Your task to perform on an android device: Go to location settings Image 0: 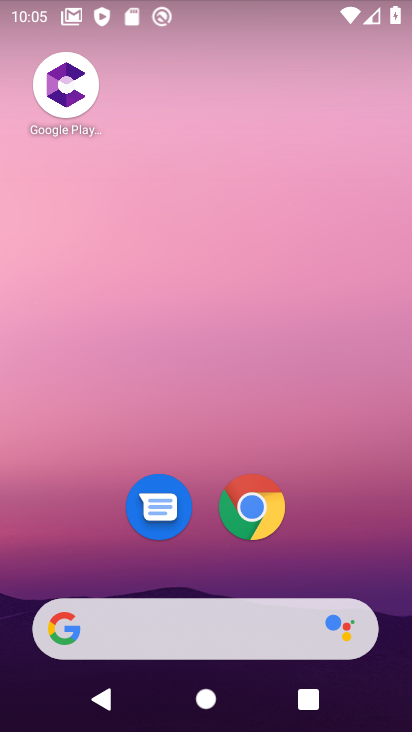
Step 0: drag from (348, 575) to (353, 10)
Your task to perform on an android device: Go to location settings Image 1: 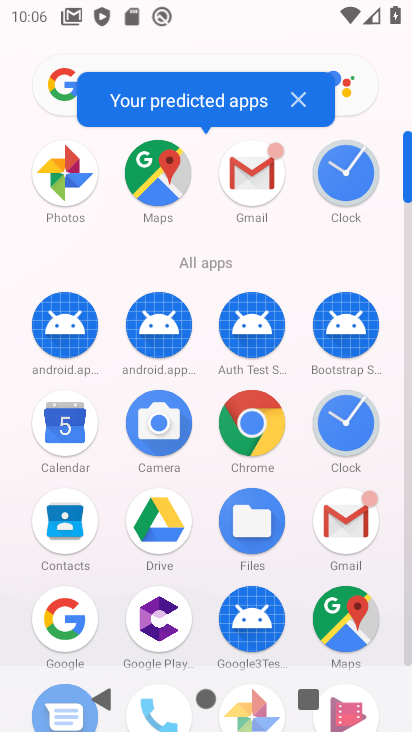
Step 1: drag from (406, 593) to (405, 471)
Your task to perform on an android device: Go to location settings Image 2: 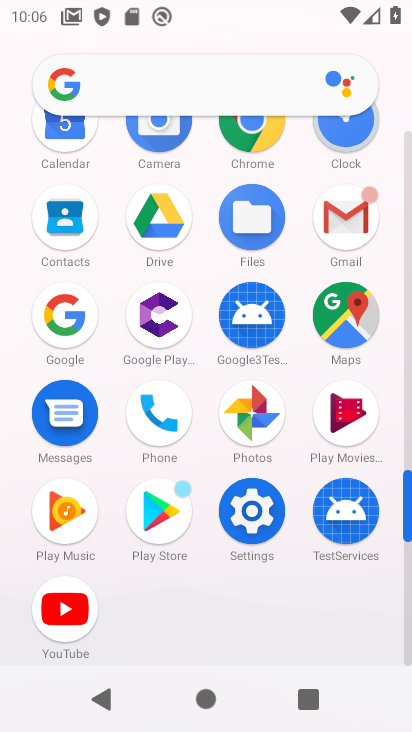
Step 2: click (260, 514)
Your task to perform on an android device: Go to location settings Image 3: 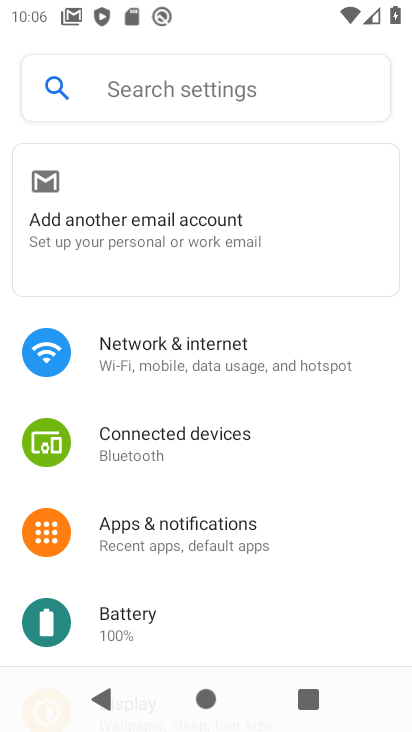
Step 3: drag from (337, 563) to (315, 212)
Your task to perform on an android device: Go to location settings Image 4: 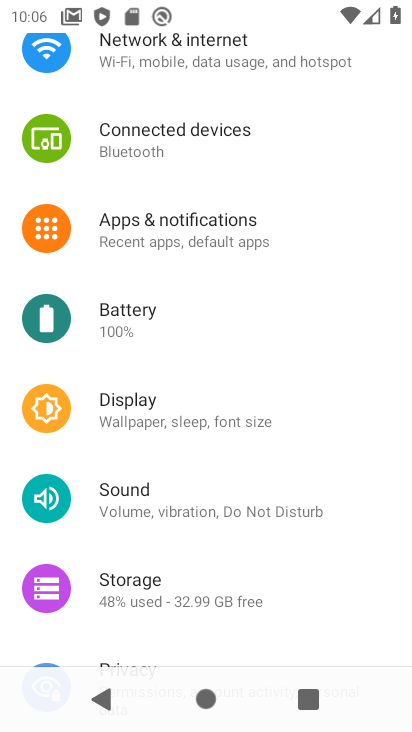
Step 4: drag from (409, 558) to (389, 322)
Your task to perform on an android device: Go to location settings Image 5: 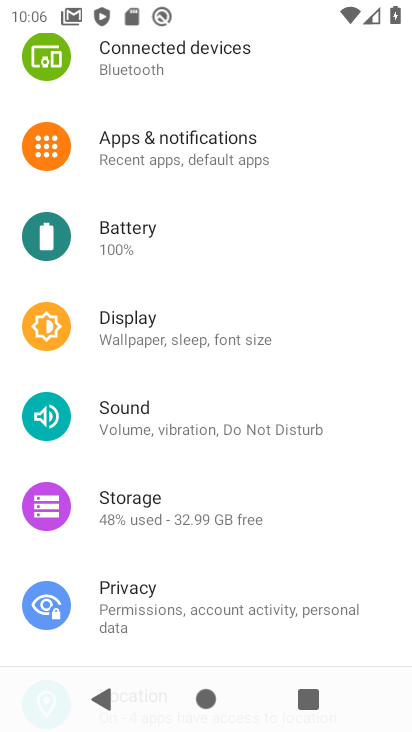
Step 5: drag from (296, 512) to (289, 256)
Your task to perform on an android device: Go to location settings Image 6: 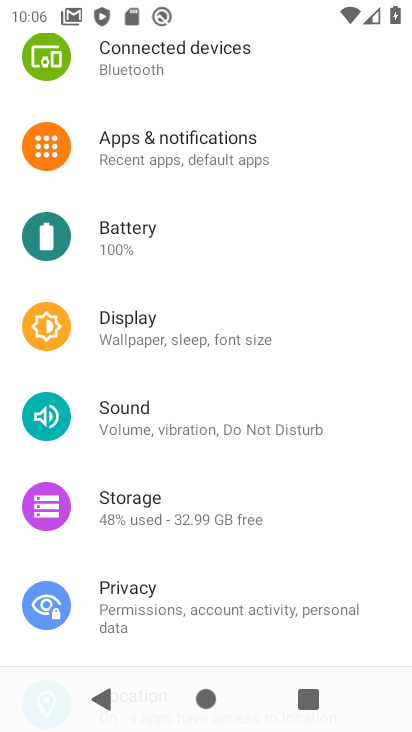
Step 6: drag from (379, 552) to (380, 297)
Your task to perform on an android device: Go to location settings Image 7: 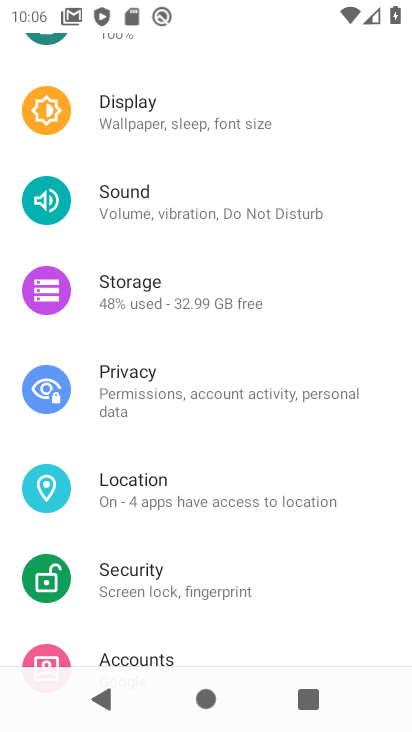
Step 7: click (120, 487)
Your task to perform on an android device: Go to location settings Image 8: 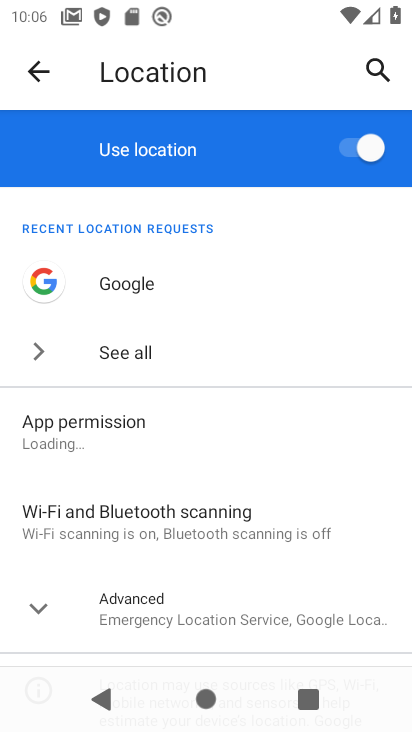
Step 8: task complete